Your task to perform on an android device: Open wifi settings Image 0: 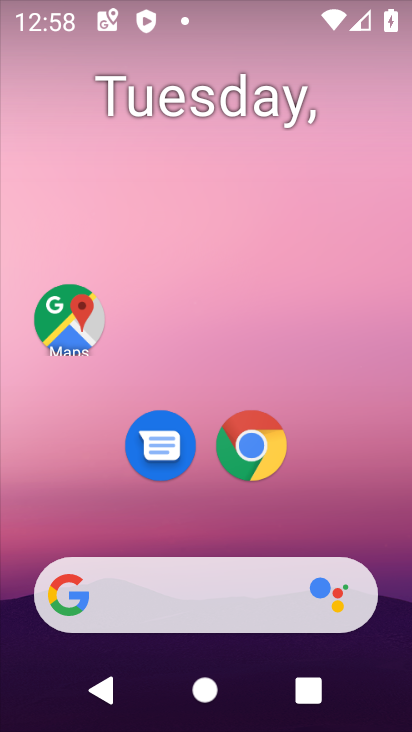
Step 0: drag from (347, 479) to (374, 0)
Your task to perform on an android device: Open wifi settings Image 1: 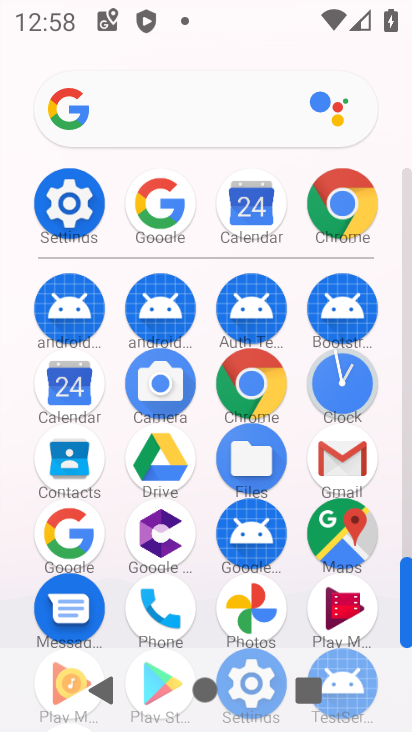
Step 1: click (56, 210)
Your task to perform on an android device: Open wifi settings Image 2: 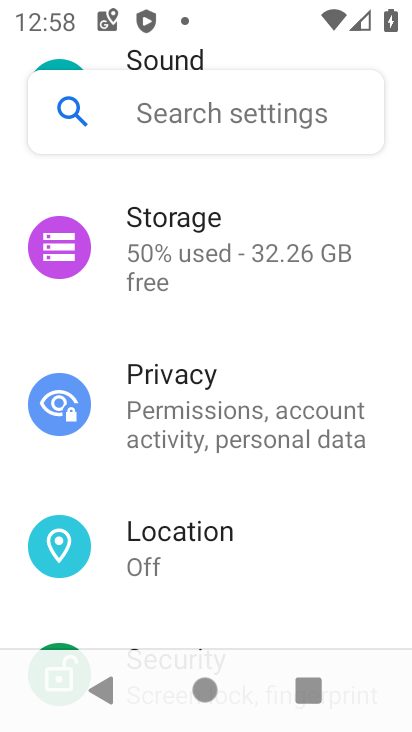
Step 2: drag from (192, 261) to (221, 670)
Your task to perform on an android device: Open wifi settings Image 3: 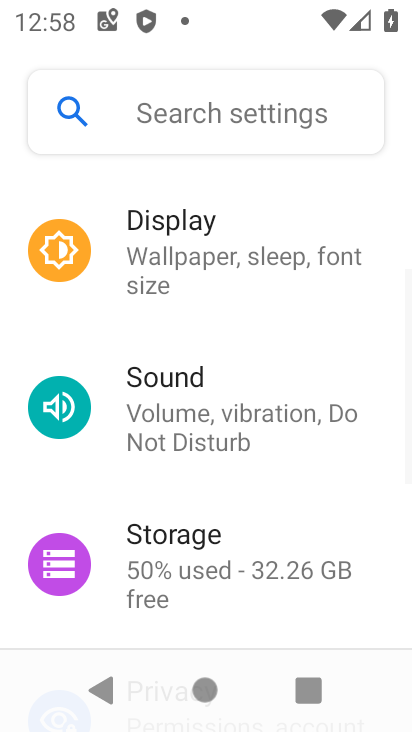
Step 3: drag from (211, 303) to (251, 684)
Your task to perform on an android device: Open wifi settings Image 4: 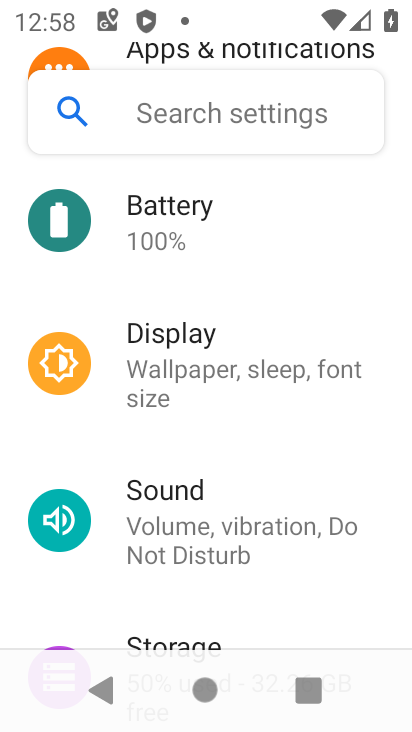
Step 4: drag from (194, 229) to (230, 592)
Your task to perform on an android device: Open wifi settings Image 5: 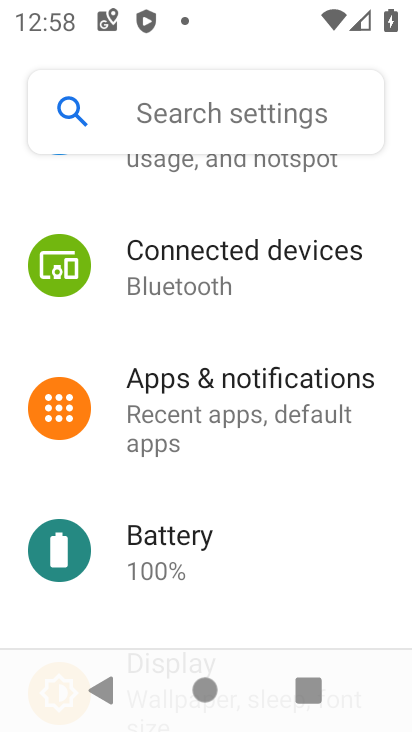
Step 5: drag from (189, 190) to (185, 554)
Your task to perform on an android device: Open wifi settings Image 6: 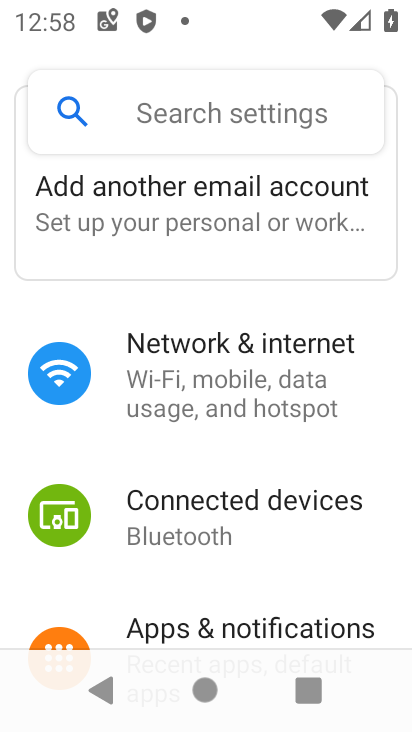
Step 6: click (119, 382)
Your task to perform on an android device: Open wifi settings Image 7: 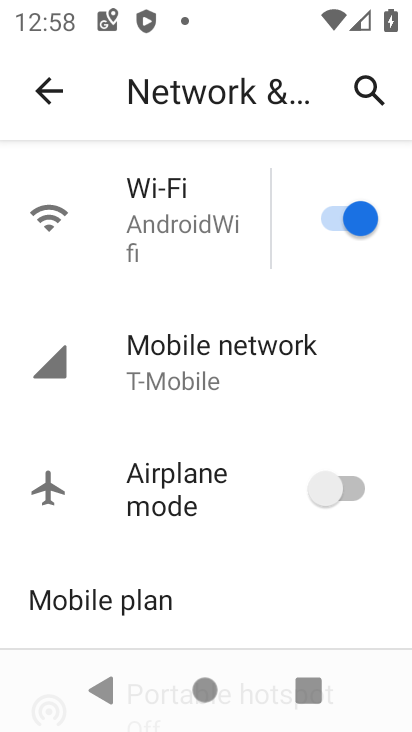
Step 7: click (169, 246)
Your task to perform on an android device: Open wifi settings Image 8: 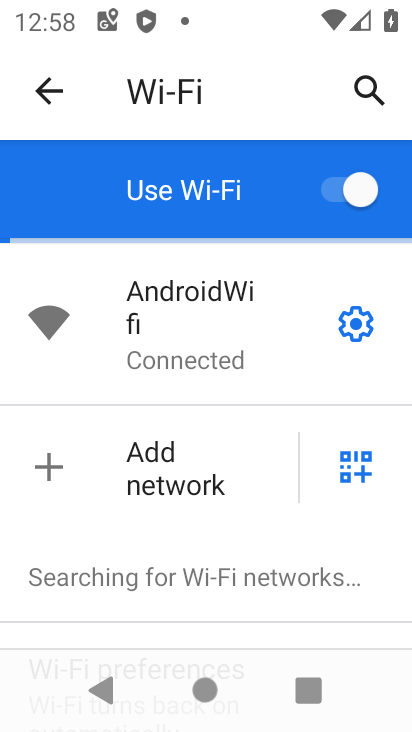
Step 8: task complete